Your task to perform on an android device: turn off data saver in the chrome app Image 0: 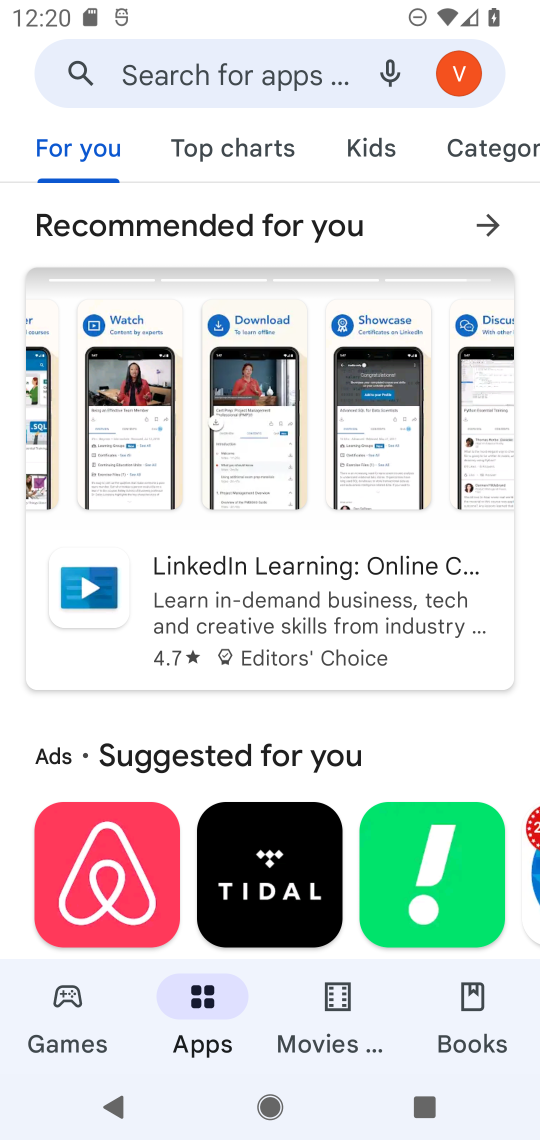
Step 0: press home button
Your task to perform on an android device: turn off data saver in the chrome app Image 1: 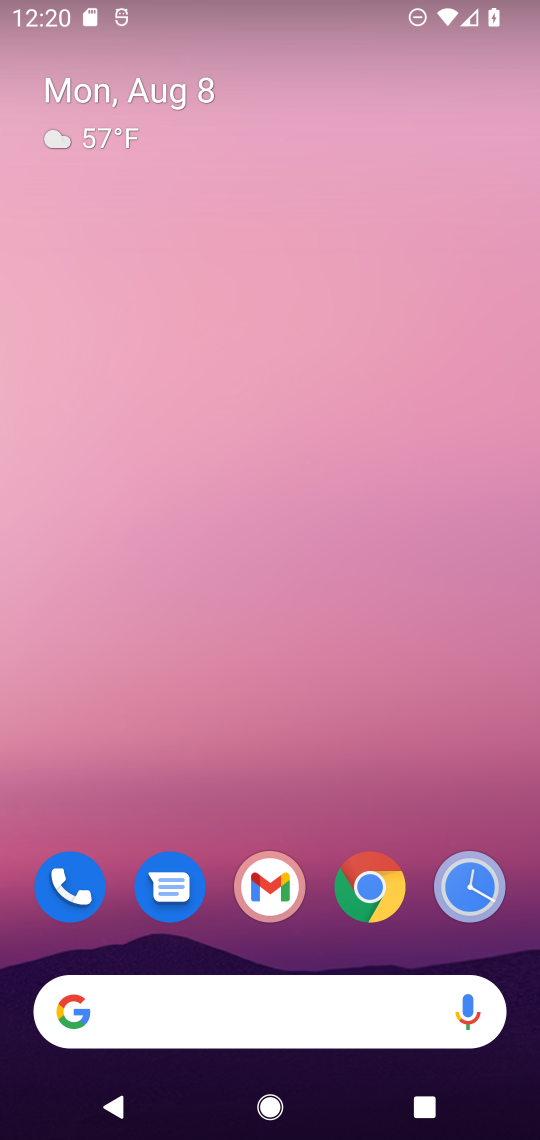
Step 1: click (383, 889)
Your task to perform on an android device: turn off data saver in the chrome app Image 2: 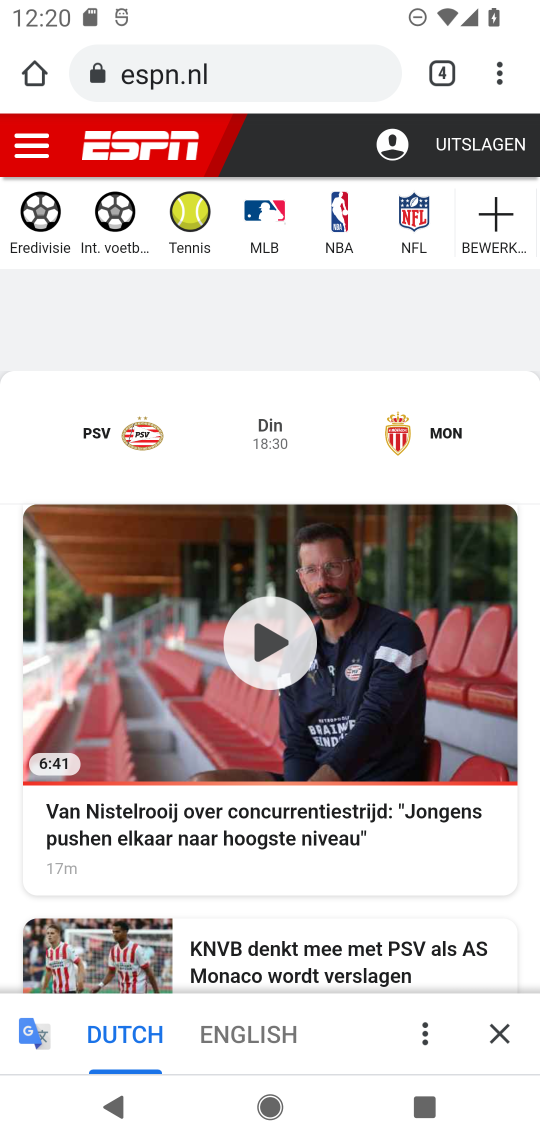
Step 2: click (493, 75)
Your task to perform on an android device: turn off data saver in the chrome app Image 3: 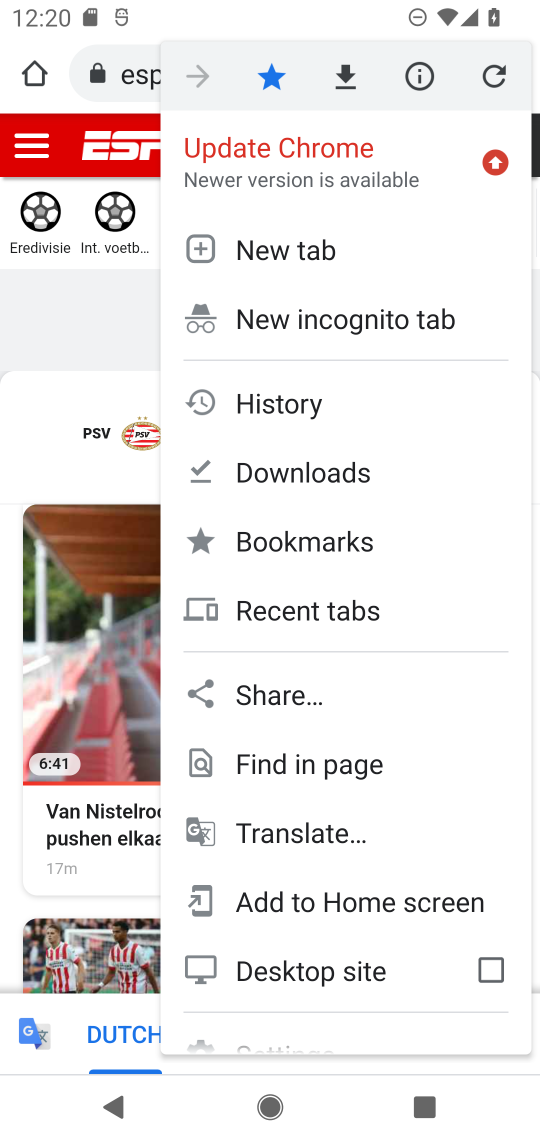
Step 3: drag from (339, 863) to (326, 244)
Your task to perform on an android device: turn off data saver in the chrome app Image 4: 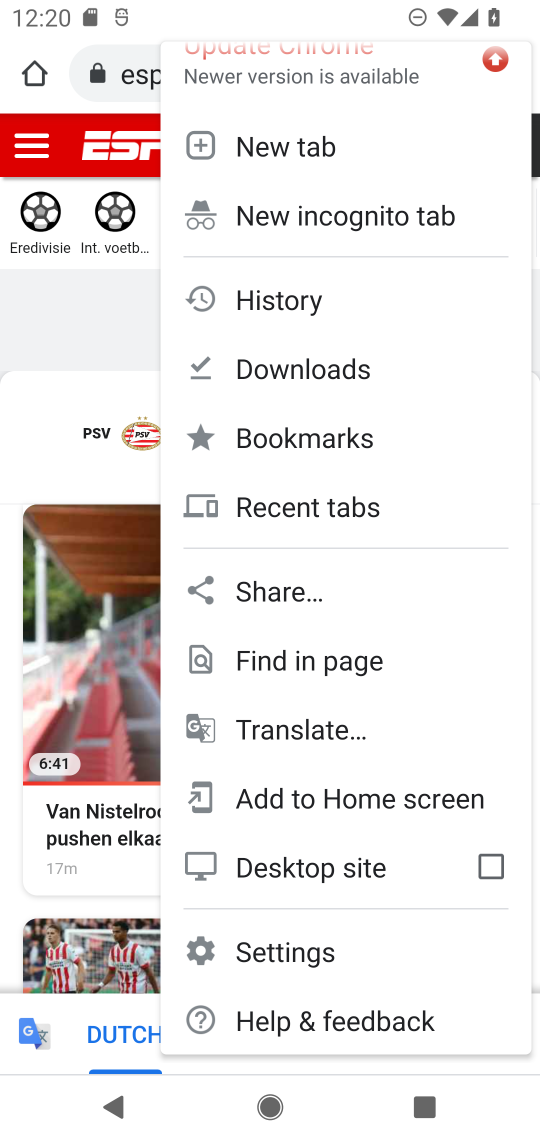
Step 4: click (288, 946)
Your task to perform on an android device: turn off data saver in the chrome app Image 5: 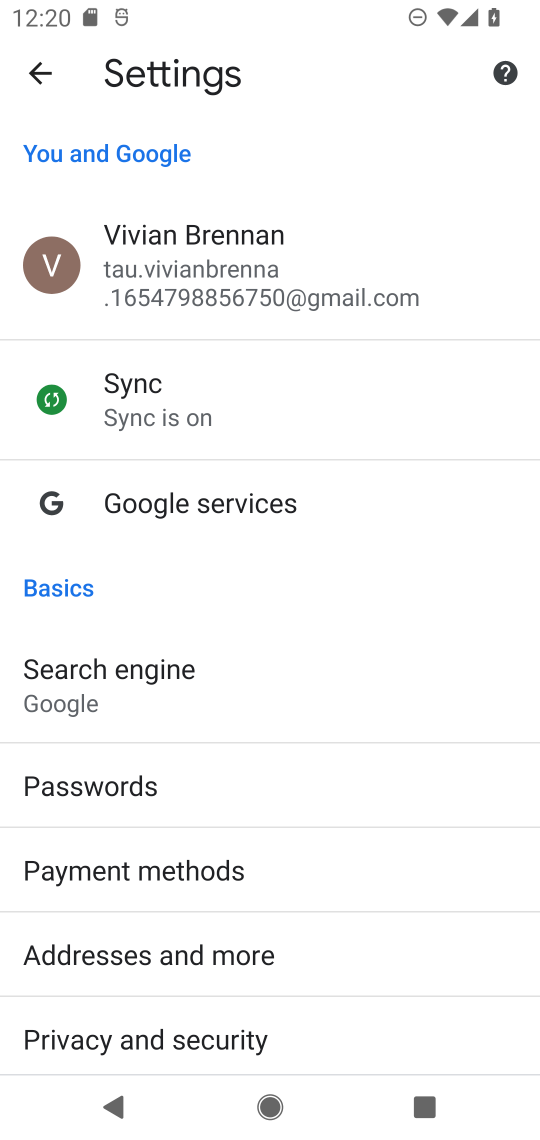
Step 5: drag from (303, 828) to (305, 301)
Your task to perform on an android device: turn off data saver in the chrome app Image 6: 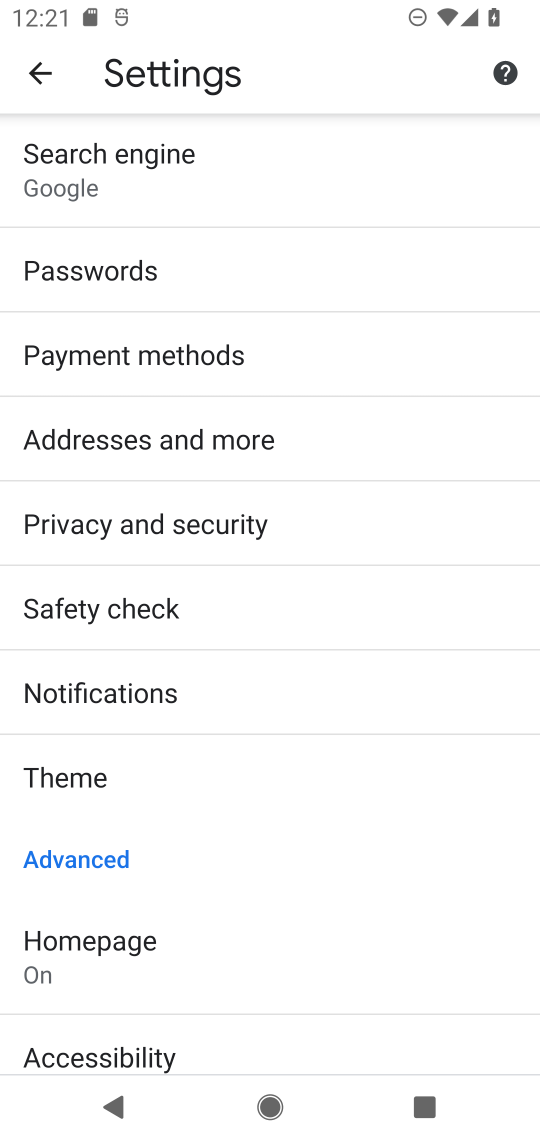
Step 6: drag from (327, 1021) to (322, 579)
Your task to perform on an android device: turn off data saver in the chrome app Image 7: 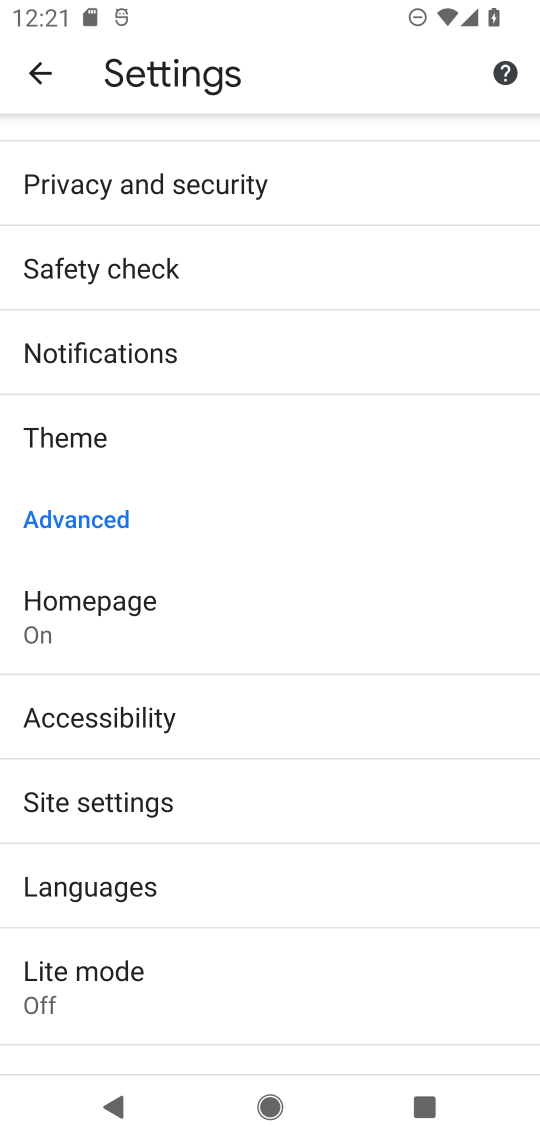
Step 7: click (64, 977)
Your task to perform on an android device: turn off data saver in the chrome app Image 8: 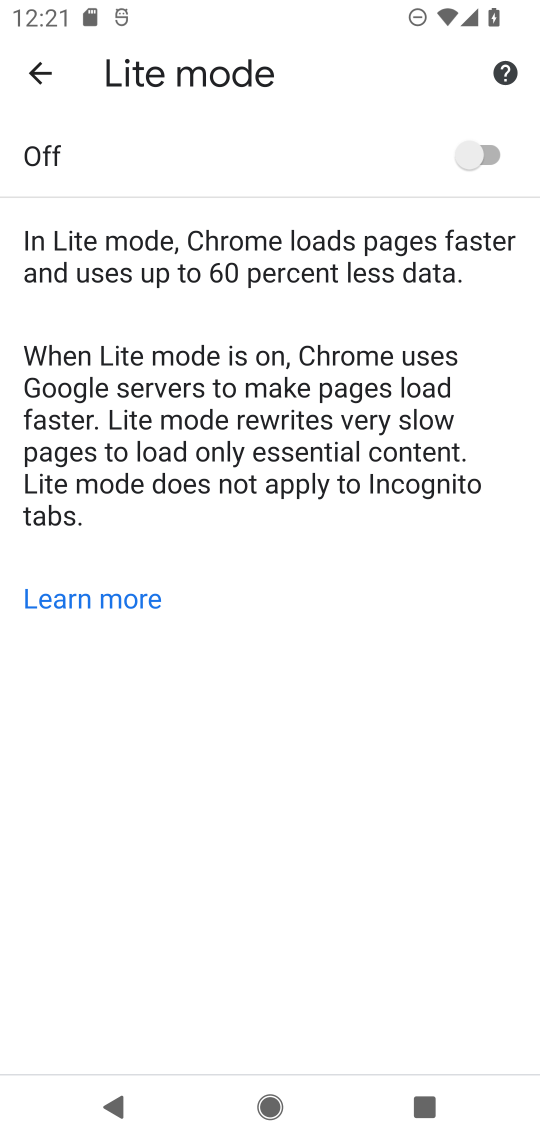
Step 8: task complete